Your task to perform on an android device: manage bookmarks in the chrome app Image 0: 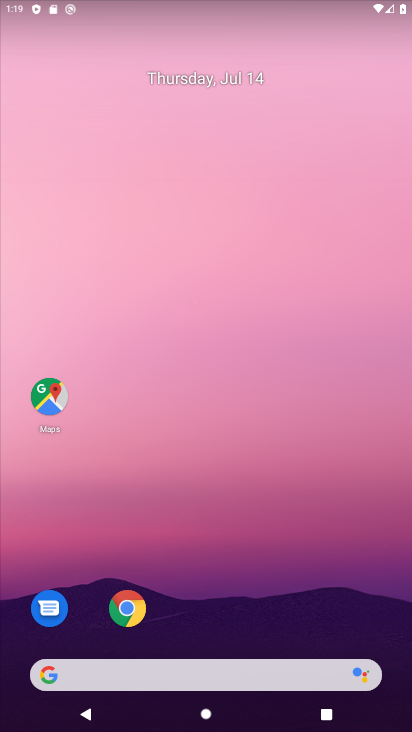
Step 0: drag from (212, 649) to (196, 306)
Your task to perform on an android device: manage bookmarks in the chrome app Image 1: 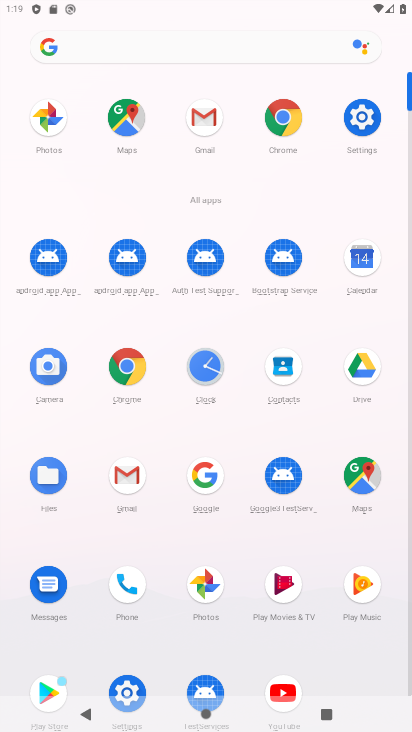
Step 1: click (126, 366)
Your task to perform on an android device: manage bookmarks in the chrome app Image 2: 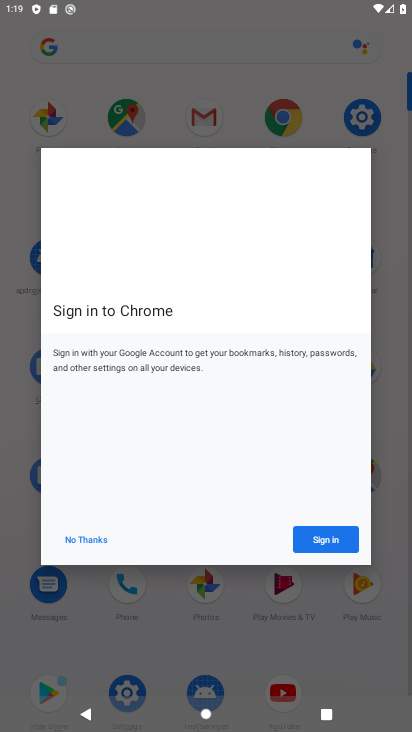
Step 2: click (314, 536)
Your task to perform on an android device: manage bookmarks in the chrome app Image 3: 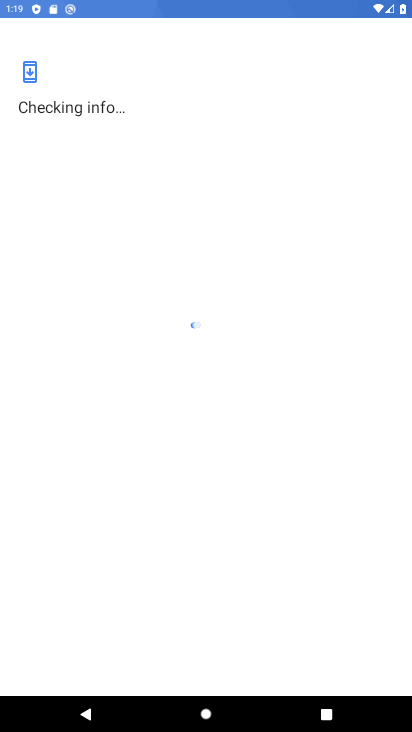
Step 3: press back button
Your task to perform on an android device: manage bookmarks in the chrome app Image 4: 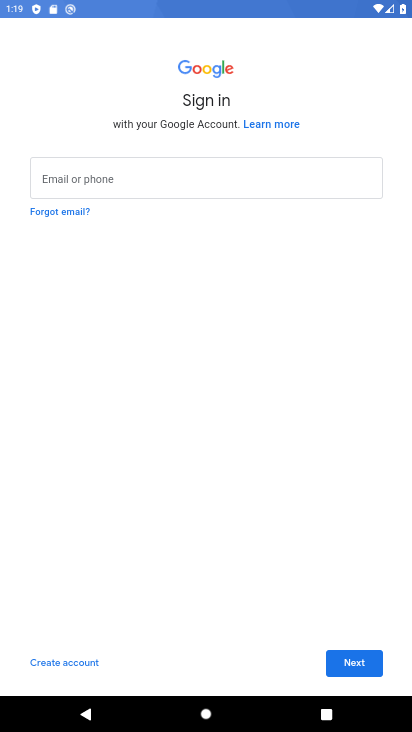
Step 4: press back button
Your task to perform on an android device: manage bookmarks in the chrome app Image 5: 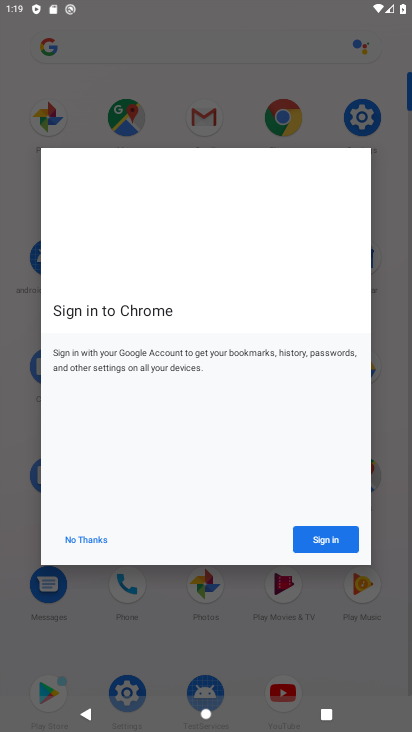
Step 5: click (80, 540)
Your task to perform on an android device: manage bookmarks in the chrome app Image 6: 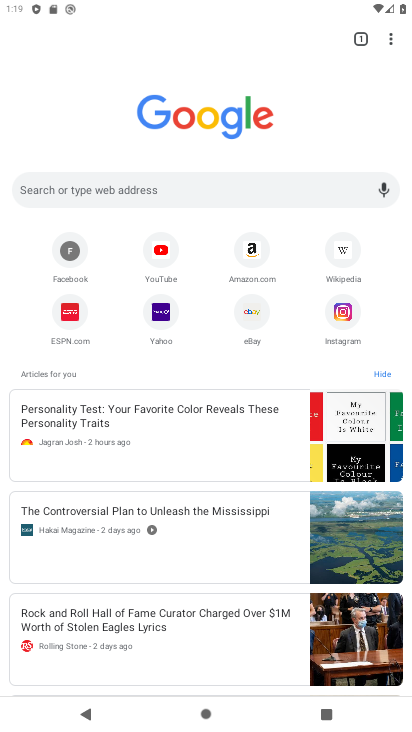
Step 6: click (395, 34)
Your task to perform on an android device: manage bookmarks in the chrome app Image 7: 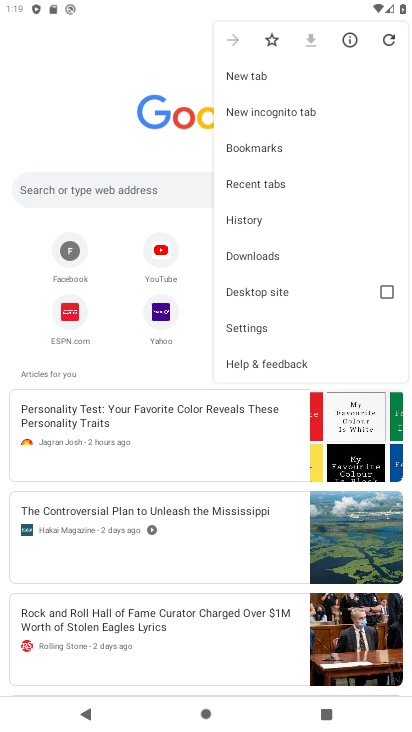
Step 7: click (261, 153)
Your task to perform on an android device: manage bookmarks in the chrome app Image 8: 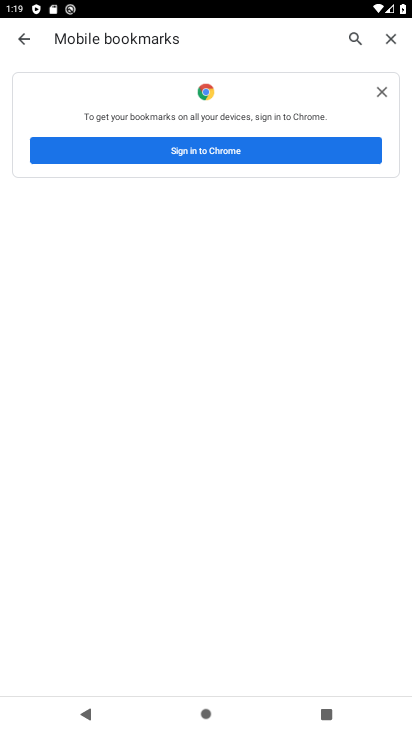
Step 8: task complete